Your task to perform on an android device: check the backup settings in the google photos Image 0: 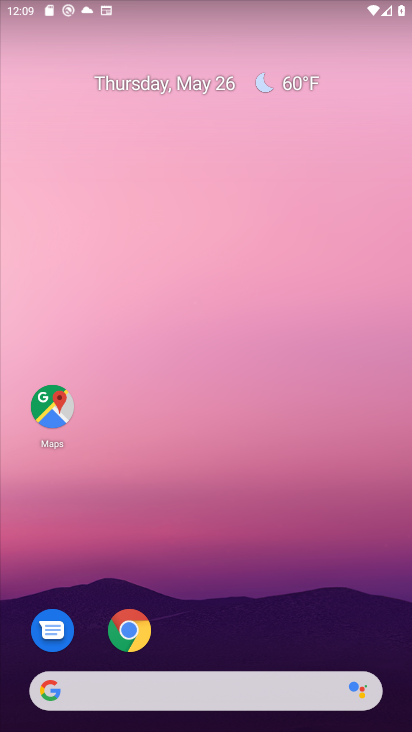
Step 0: drag from (326, 592) to (294, 75)
Your task to perform on an android device: check the backup settings in the google photos Image 1: 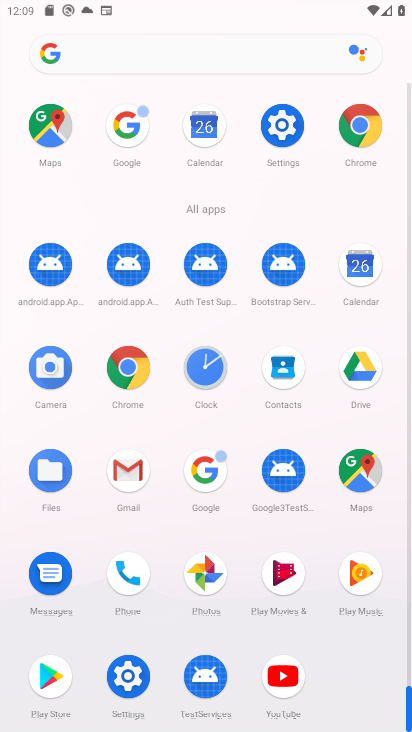
Step 1: click (196, 561)
Your task to perform on an android device: check the backup settings in the google photos Image 2: 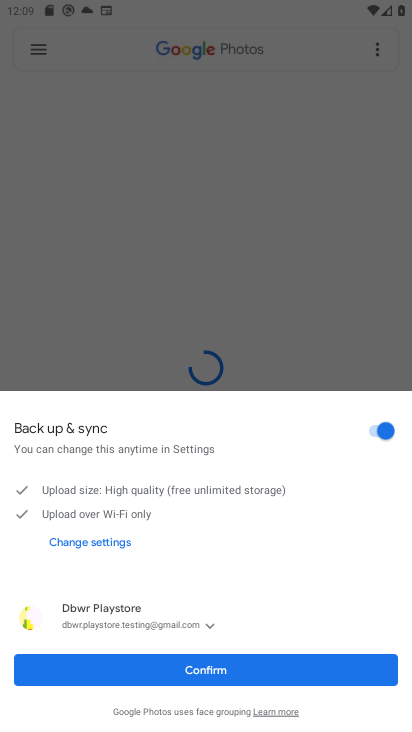
Step 2: click (202, 679)
Your task to perform on an android device: check the backup settings in the google photos Image 3: 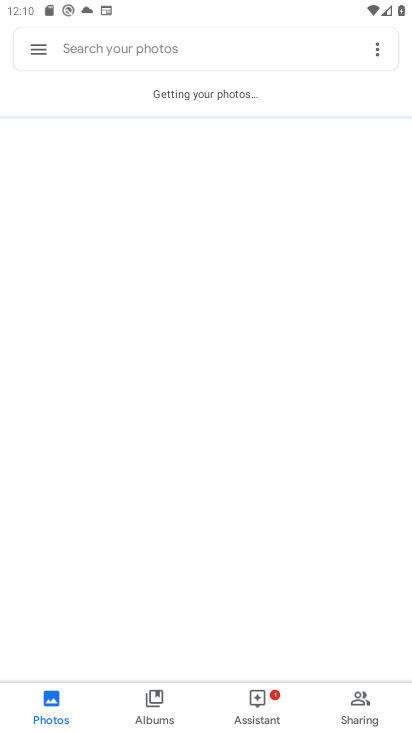
Step 3: click (35, 56)
Your task to perform on an android device: check the backup settings in the google photos Image 4: 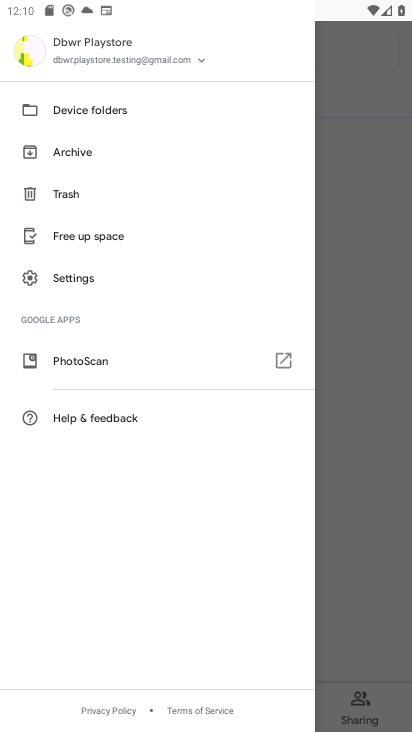
Step 4: click (48, 270)
Your task to perform on an android device: check the backup settings in the google photos Image 5: 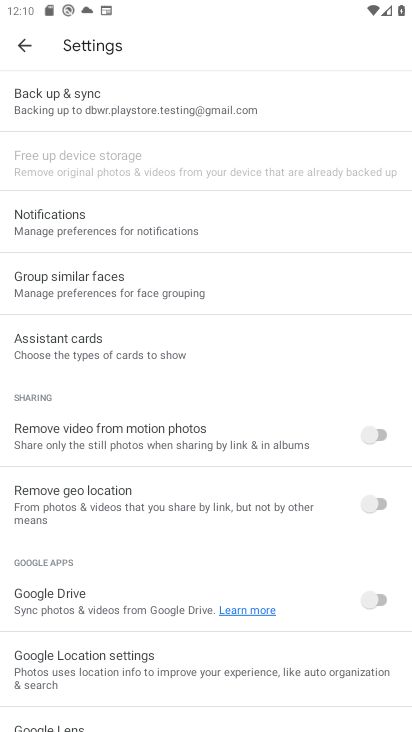
Step 5: click (104, 108)
Your task to perform on an android device: check the backup settings in the google photos Image 6: 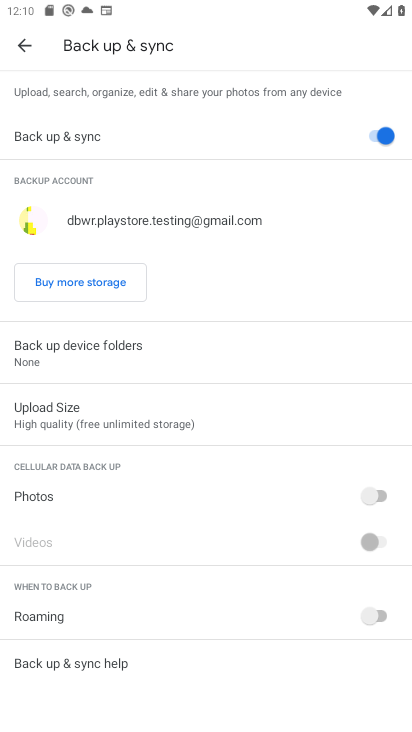
Step 6: task complete